Your task to perform on an android device: Open the calendar and show me this week's events Image 0: 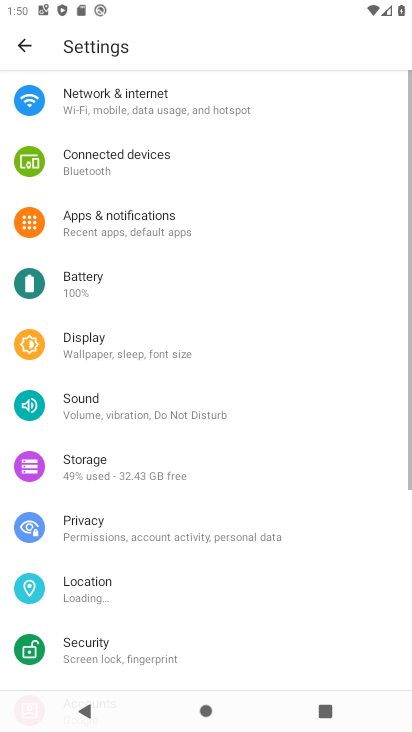
Step 0: press home button
Your task to perform on an android device: Open the calendar and show me this week's events Image 1: 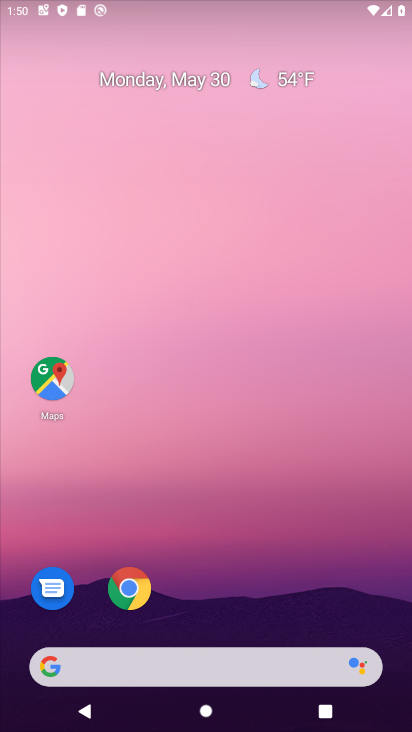
Step 1: drag from (256, 591) to (266, 29)
Your task to perform on an android device: Open the calendar and show me this week's events Image 2: 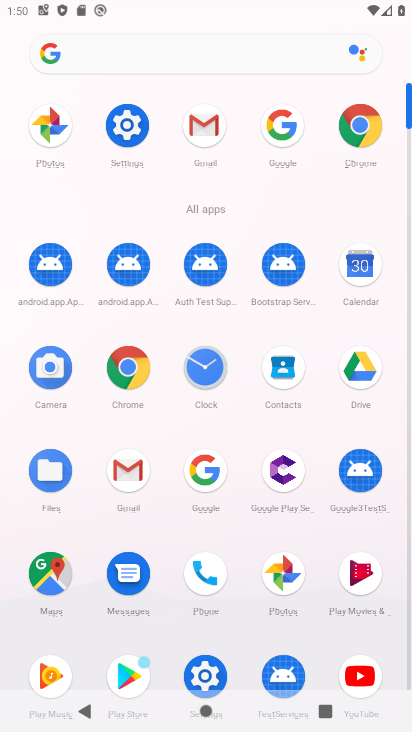
Step 2: click (360, 262)
Your task to perform on an android device: Open the calendar and show me this week's events Image 3: 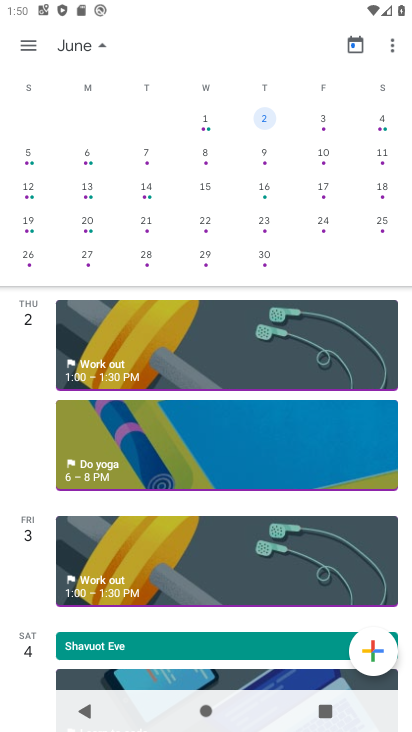
Step 3: drag from (46, 220) to (406, 211)
Your task to perform on an android device: Open the calendar and show me this week's events Image 4: 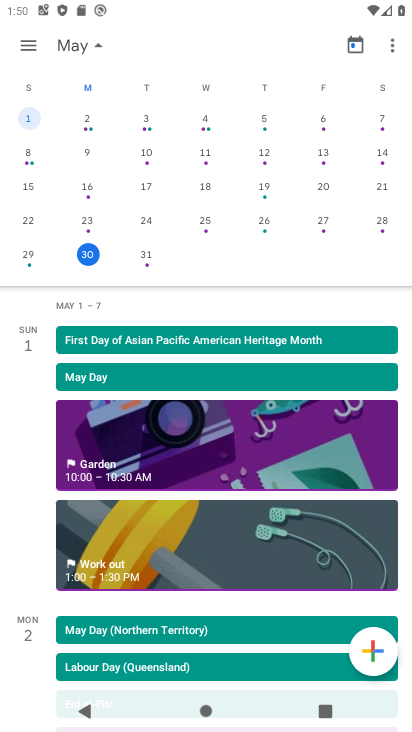
Step 4: click (149, 252)
Your task to perform on an android device: Open the calendar and show me this week's events Image 5: 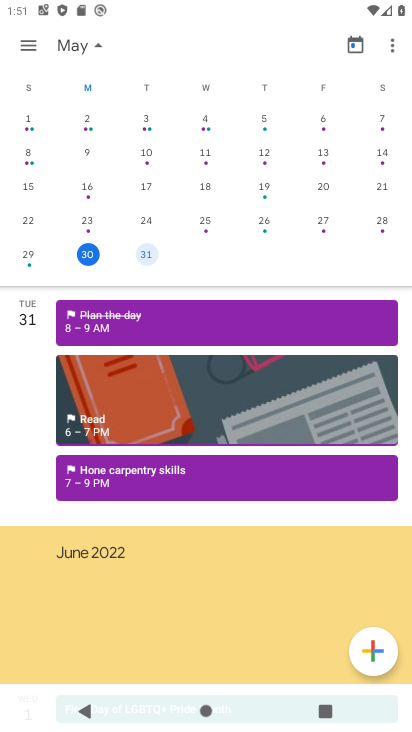
Step 5: task complete